Your task to perform on an android device: change alarm snooze length Image 0: 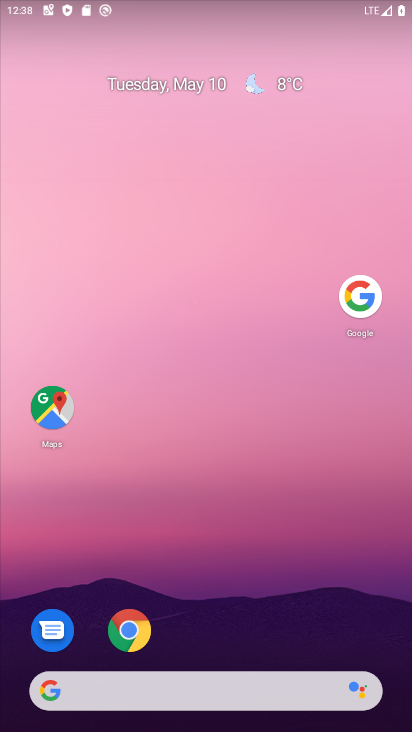
Step 0: press home button
Your task to perform on an android device: change alarm snooze length Image 1: 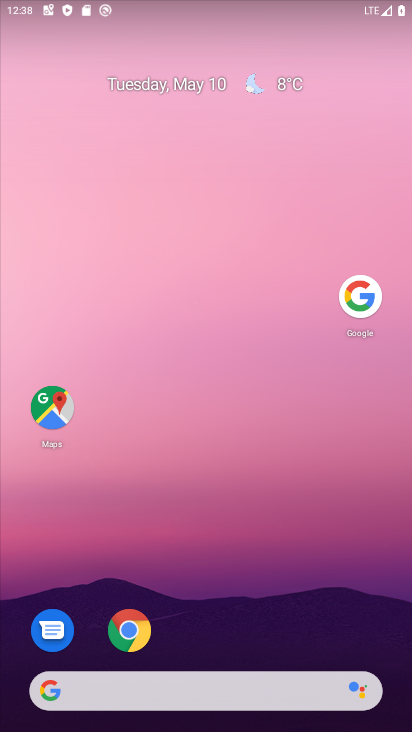
Step 1: drag from (176, 694) to (299, 177)
Your task to perform on an android device: change alarm snooze length Image 2: 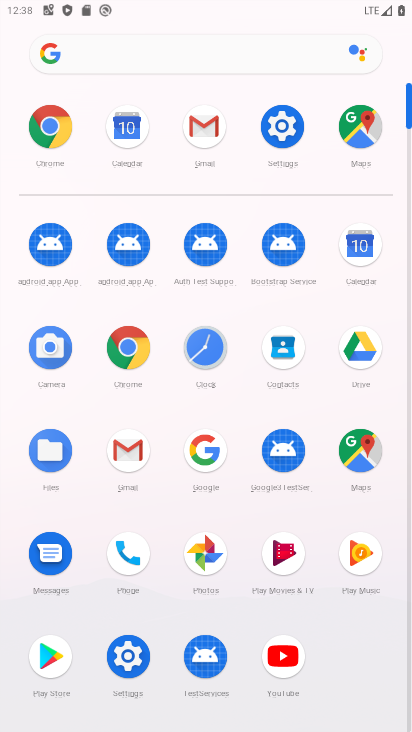
Step 2: click (208, 347)
Your task to perform on an android device: change alarm snooze length Image 3: 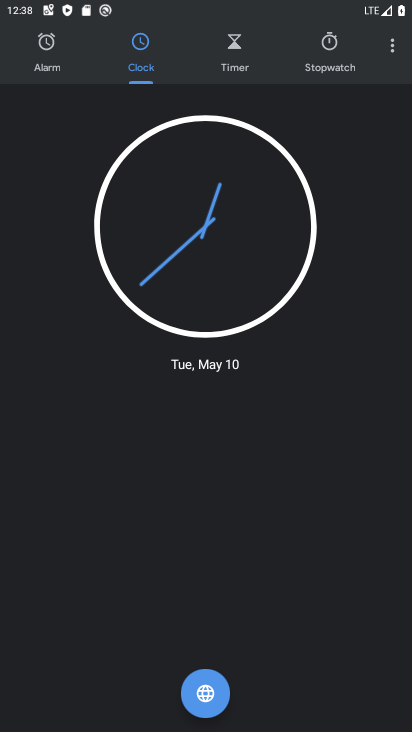
Step 3: click (392, 49)
Your task to perform on an android device: change alarm snooze length Image 4: 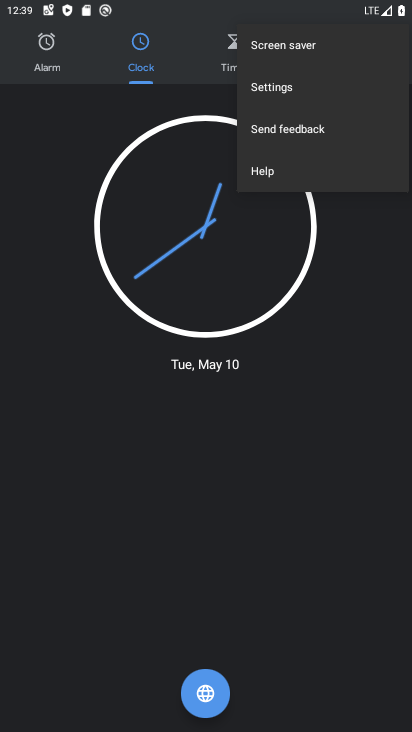
Step 4: click (273, 88)
Your task to perform on an android device: change alarm snooze length Image 5: 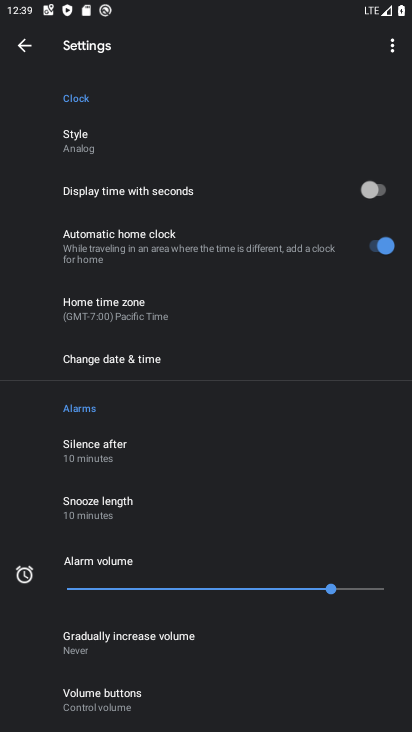
Step 5: click (124, 506)
Your task to perform on an android device: change alarm snooze length Image 6: 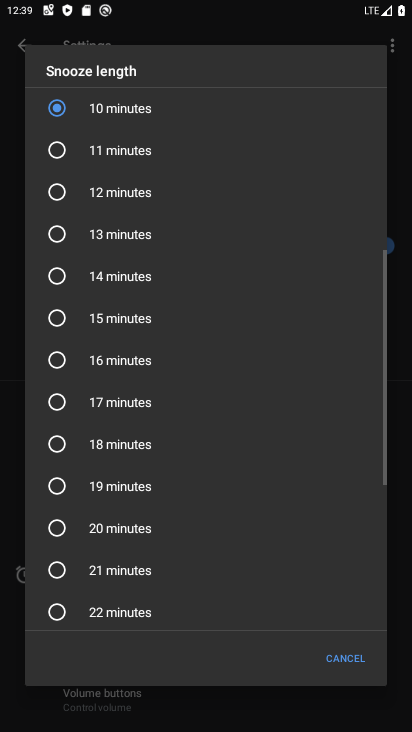
Step 6: click (52, 320)
Your task to perform on an android device: change alarm snooze length Image 7: 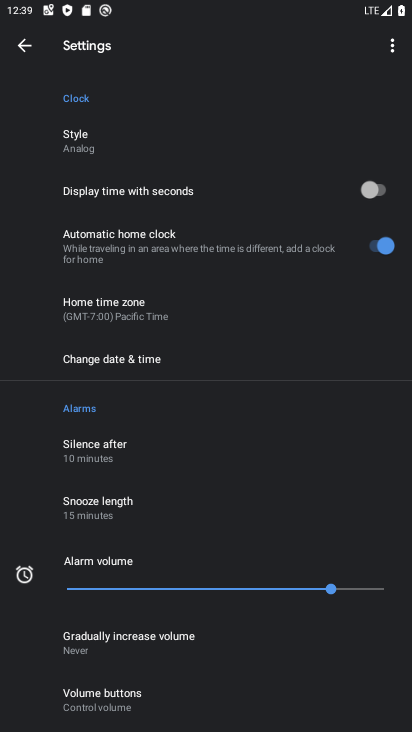
Step 7: task complete